Your task to perform on an android device: read, delete, or share a saved page in the chrome app Image 0: 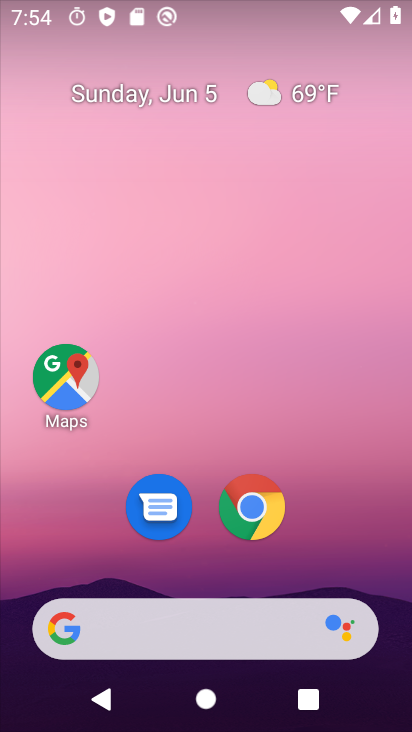
Step 0: drag from (382, 580) to (201, 12)
Your task to perform on an android device: read, delete, or share a saved page in the chrome app Image 1: 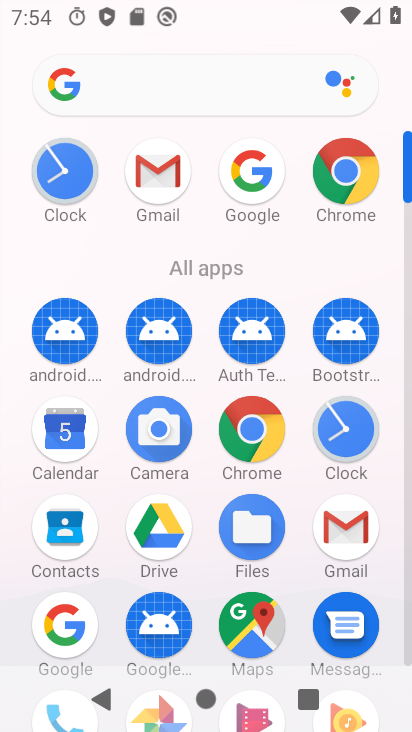
Step 1: click (251, 426)
Your task to perform on an android device: read, delete, or share a saved page in the chrome app Image 2: 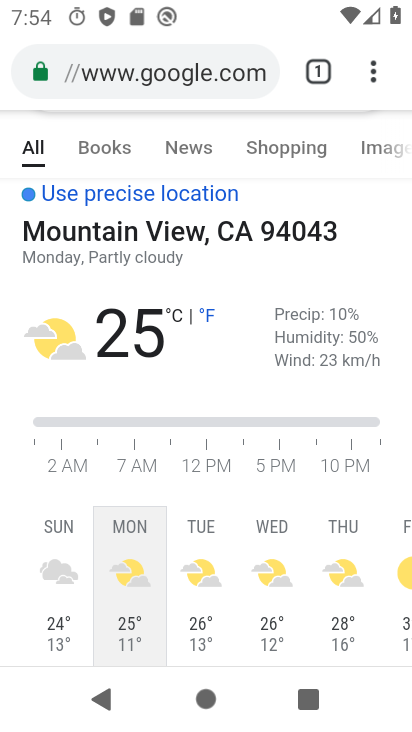
Step 2: task complete